Your task to perform on an android device: Check the weather Image 0: 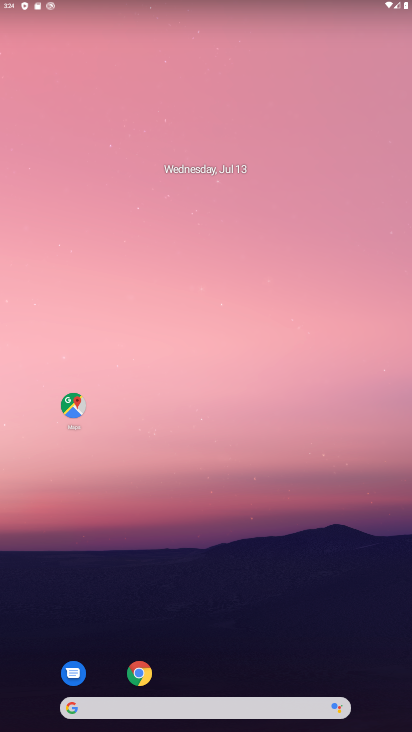
Step 0: drag from (246, 647) to (275, 406)
Your task to perform on an android device: Check the weather Image 1: 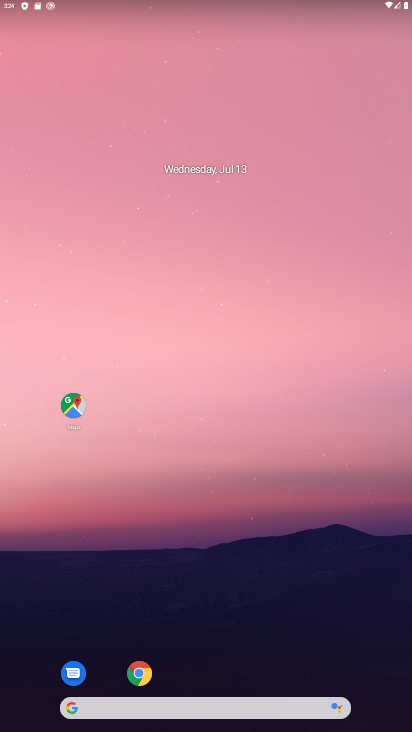
Step 1: drag from (198, 701) to (247, 248)
Your task to perform on an android device: Check the weather Image 2: 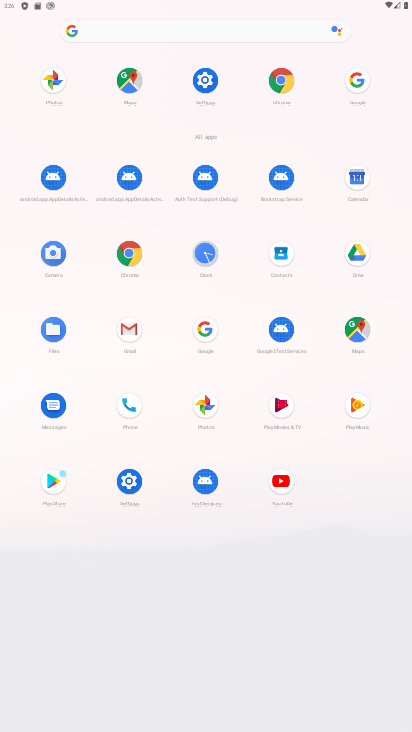
Step 2: click (196, 322)
Your task to perform on an android device: Check the weather Image 3: 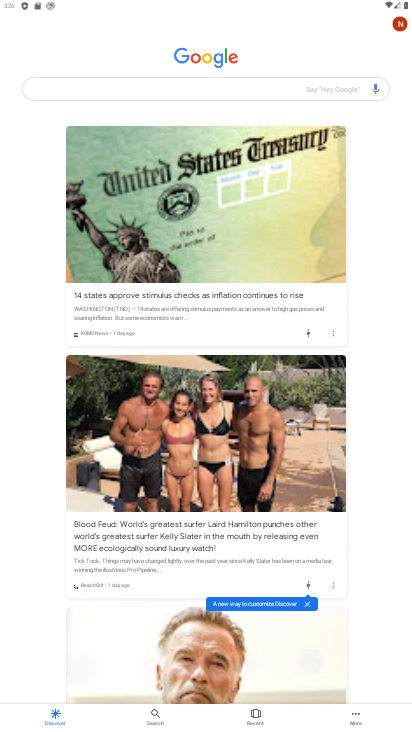
Step 3: click (72, 89)
Your task to perform on an android device: Check the weather Image 4: 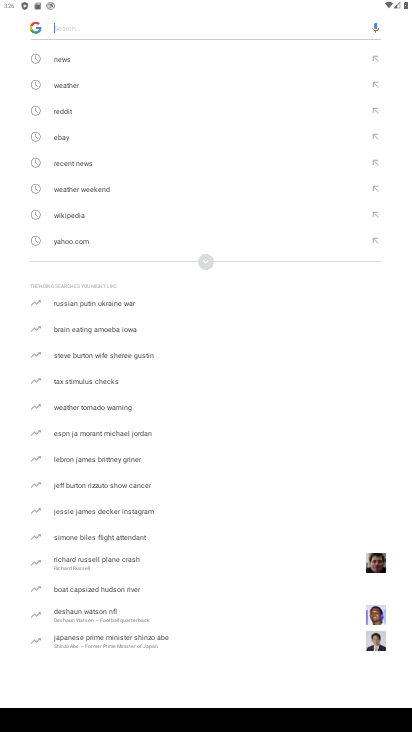
Step 4: click (59, 85)
Your task to perform on an android device: Check the weather Image 5: 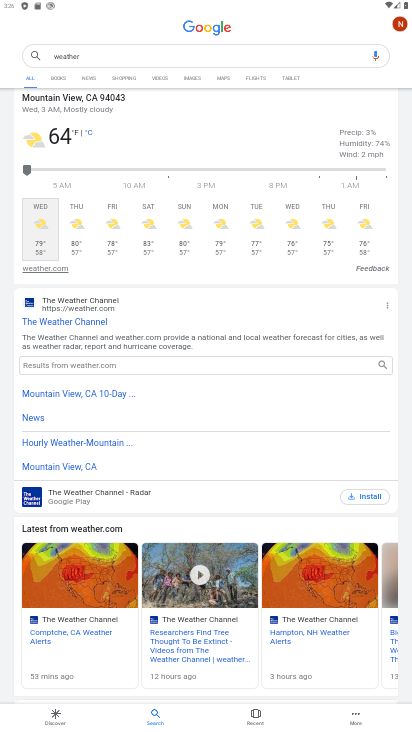
Step 5: task complete